Your task to perform on an android device: Clear the shopping cart on costco. Add usb-a to usb-b to the cart on costco Image 0: 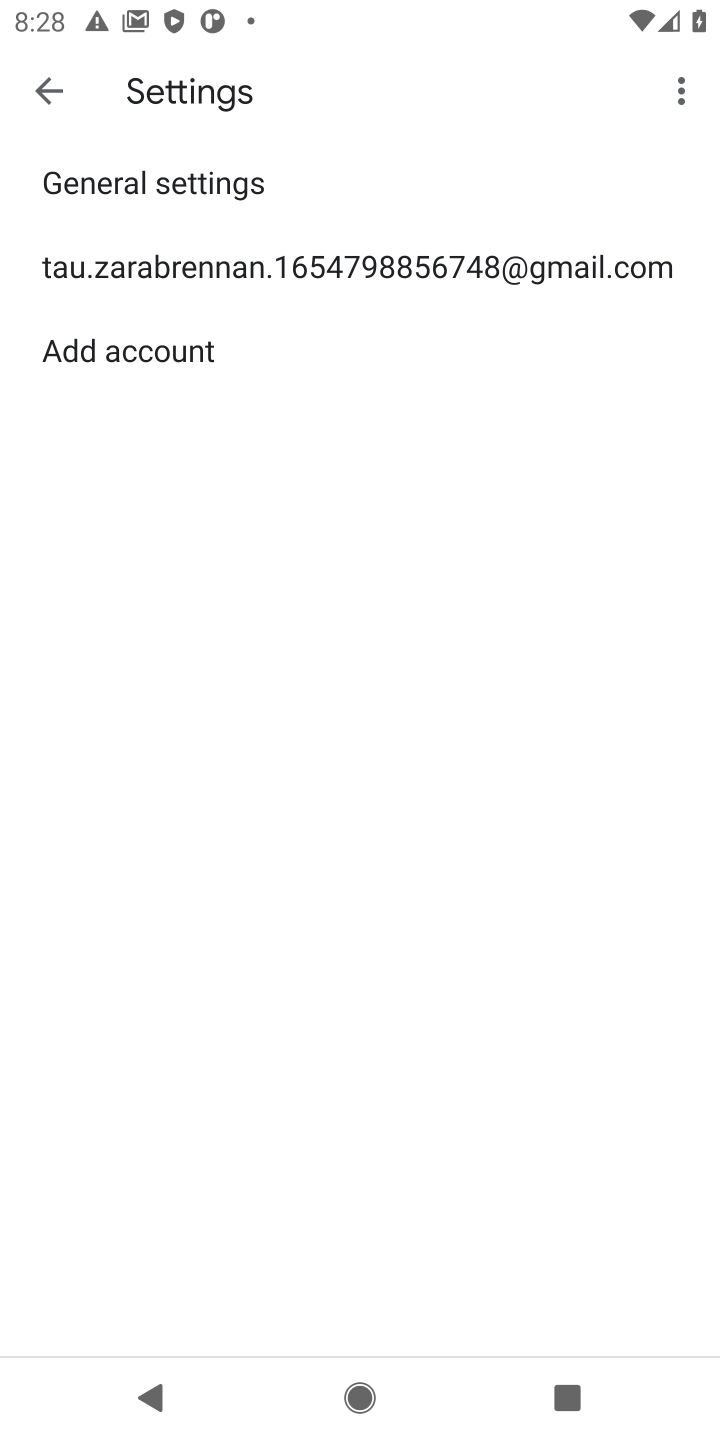
Step 0: press home button
Your task to perform on an android device: Clear the shopping cart on costco. Add usb-a to usb-b to the cart on costco Image 1: 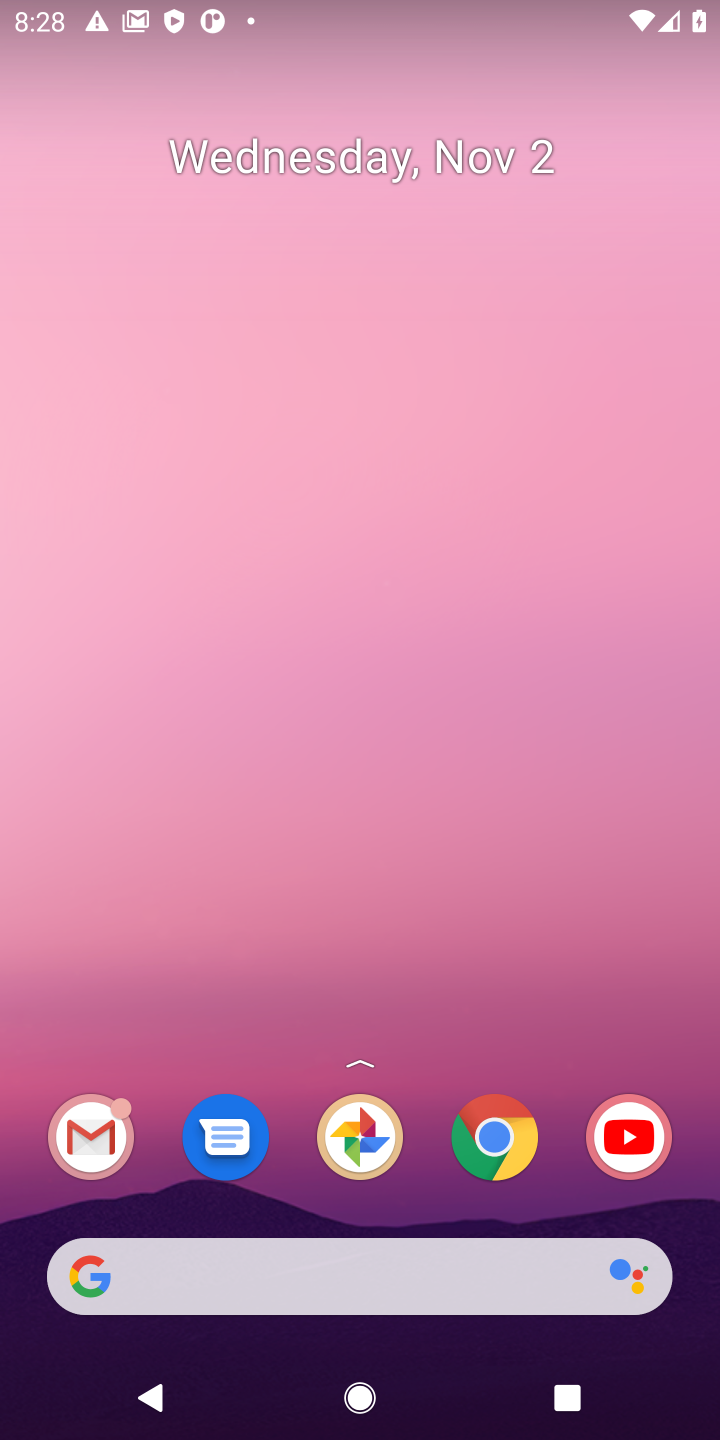
Step 1: click (477, 1128)
Your task to perform on an android device: Clear the shopping cart on costco. Add usb-a to usb-b to the cart on costco Image 2: 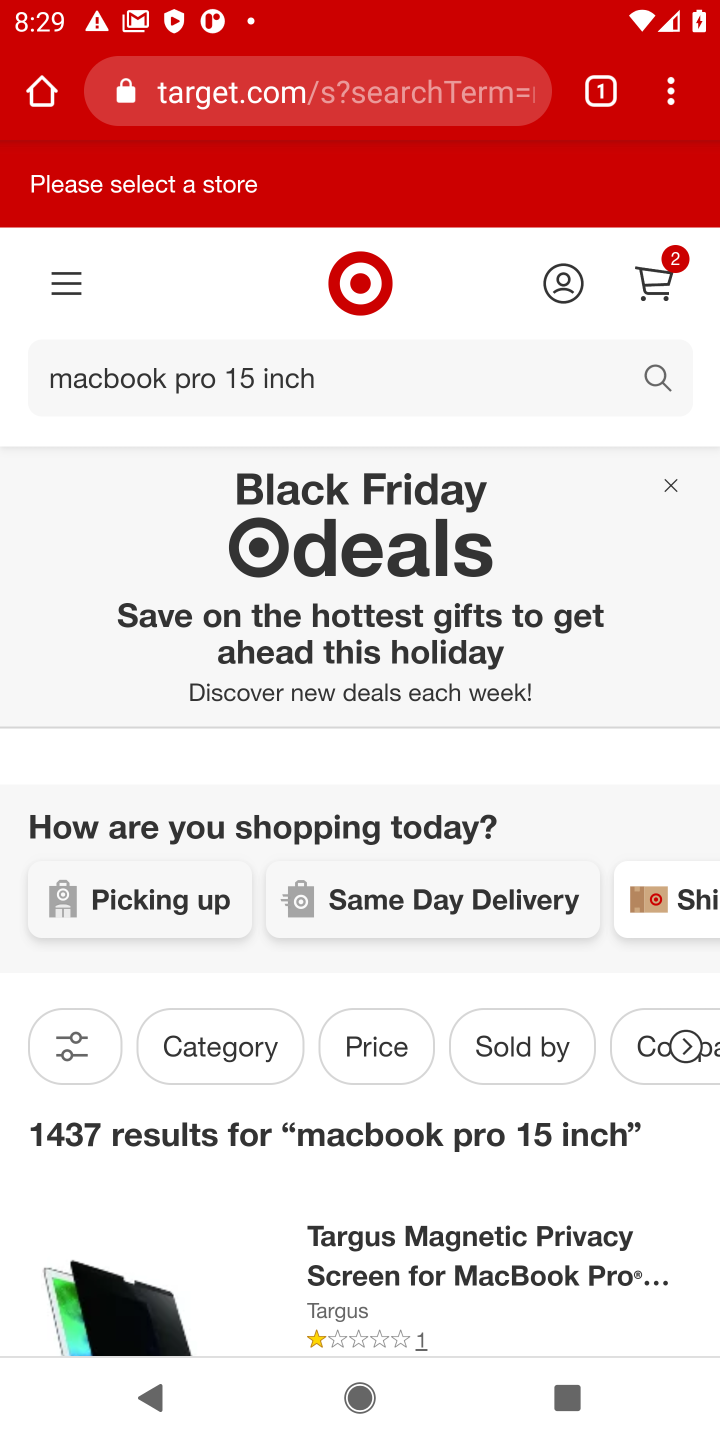
Step 2: click (367, 69)
Your task to perform on an android device: Clear the shopping cart on costco. Add usb-a to usb-b to the cart on costco Image 3: 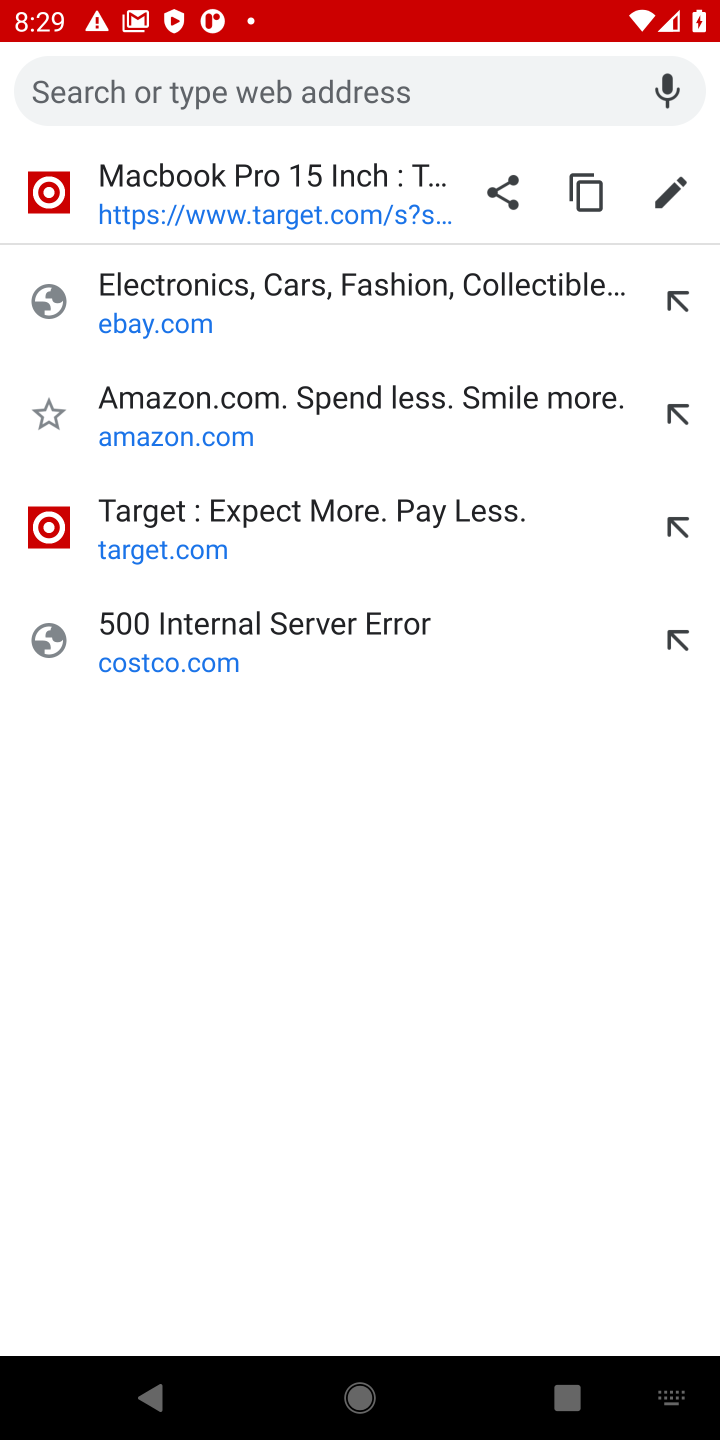
Step 3: type "costco.com"
Your task to perform on an android device: Clear the shopping cart on costco. Add usb-a to usb-b to the cart on costco Image 4: 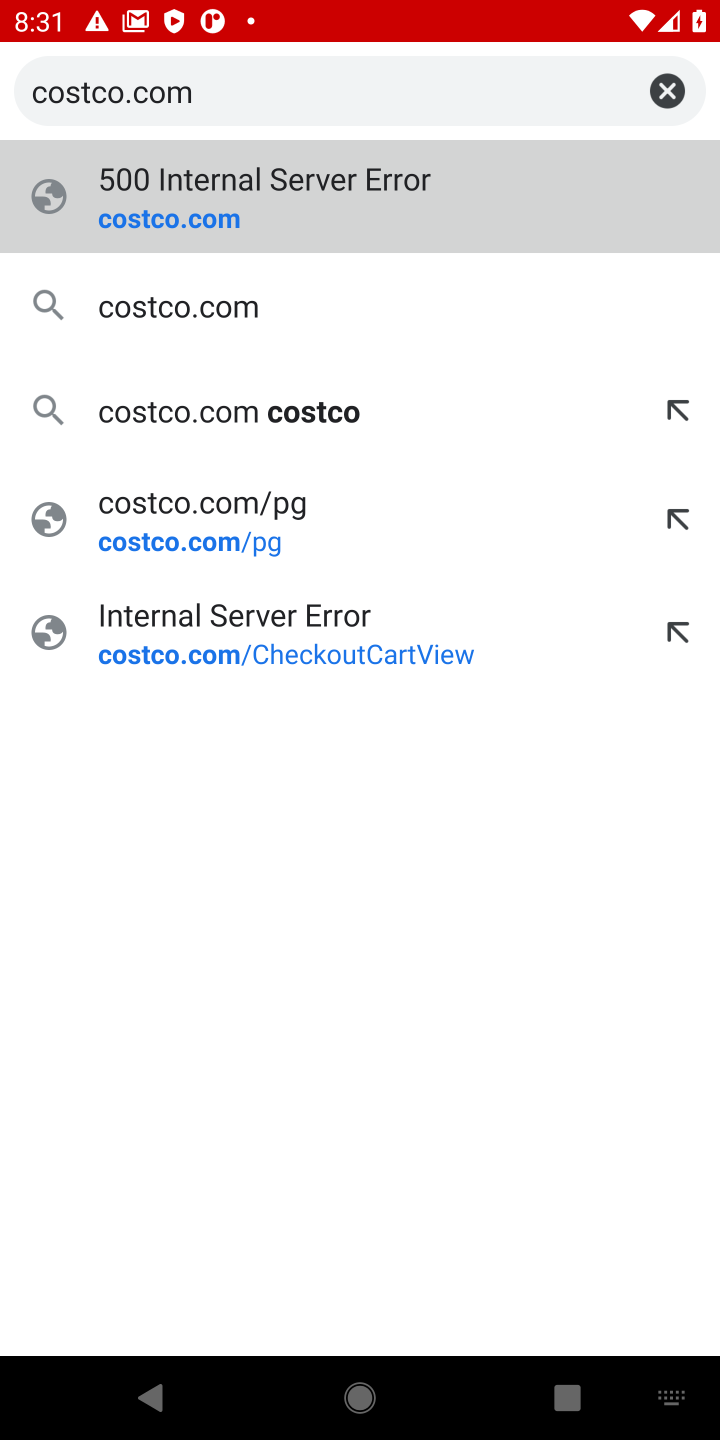
Step 4: click (139, 307)
Your task to perform on an android device: Clear the shopping cart on costco. Add usb-a to usb-b to the cart on costco Image 5: 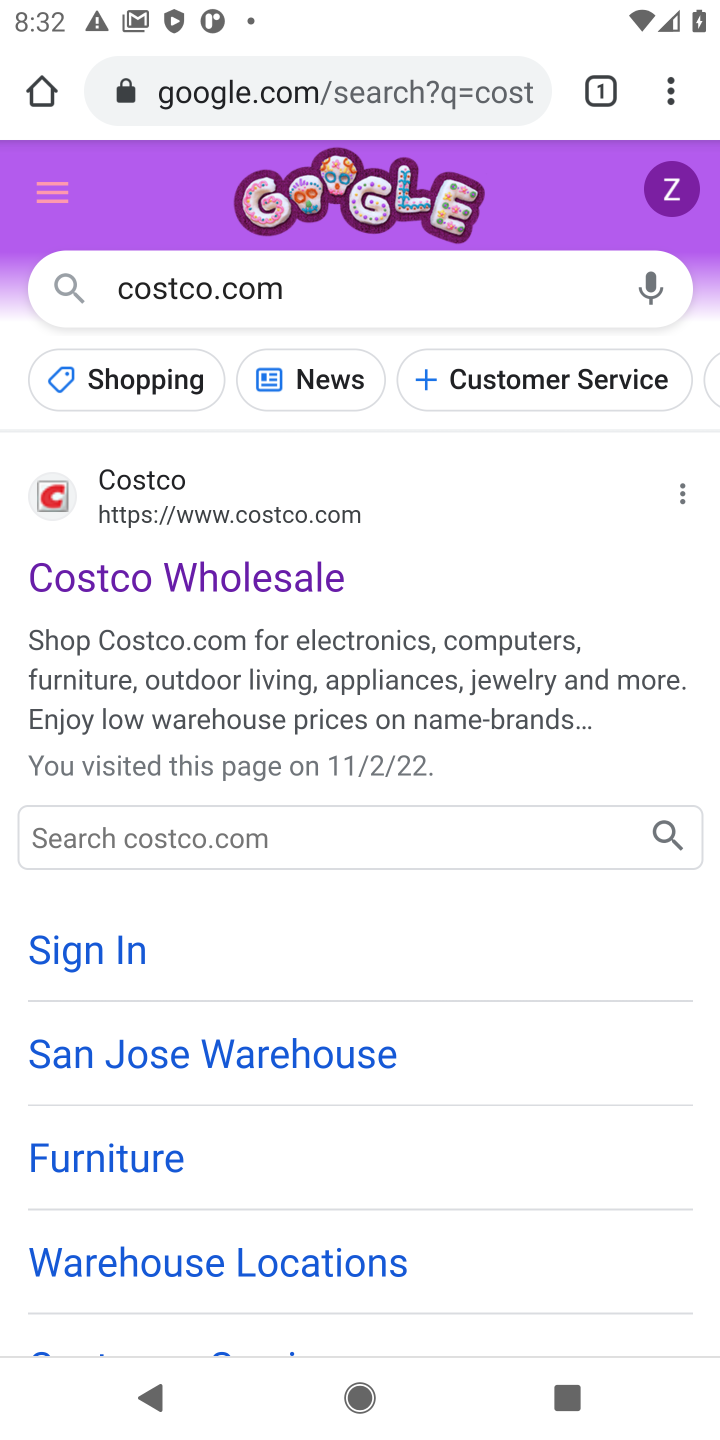
Step 5: click (176, 566)
Your task to perform on an android device: Clear the shopping cart on costco. Add usb-a to usb-b to the cart on costco Image 6: 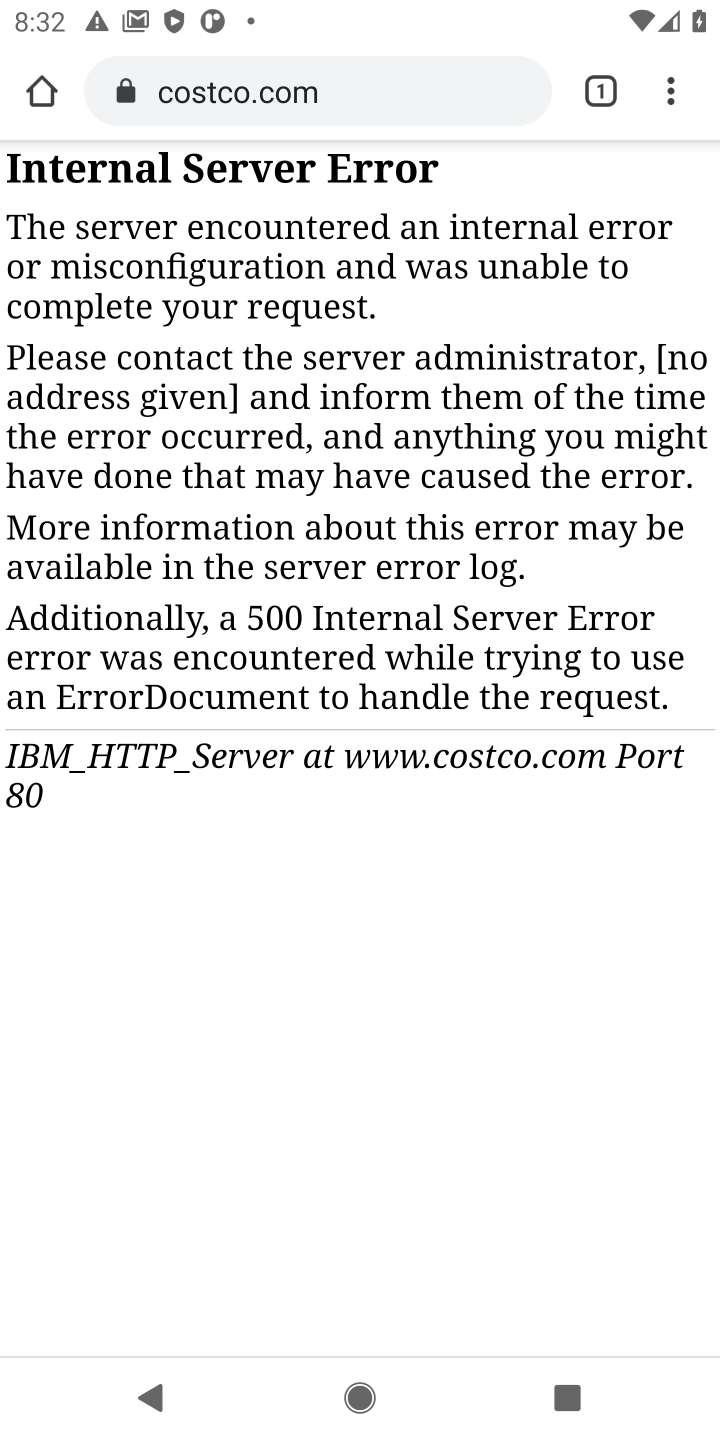
Step 6: task complete